Your task to perform on an android device: What is the recent news? Image 0: 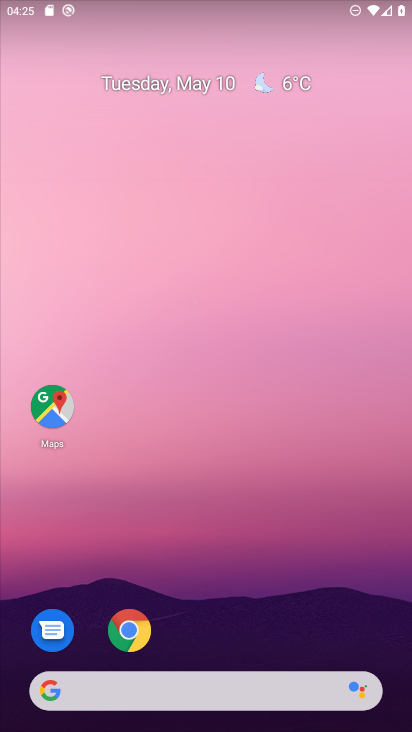
Step 0: click (113, 683)
Your task to perform on an android device: What is the recent news? Image 1: 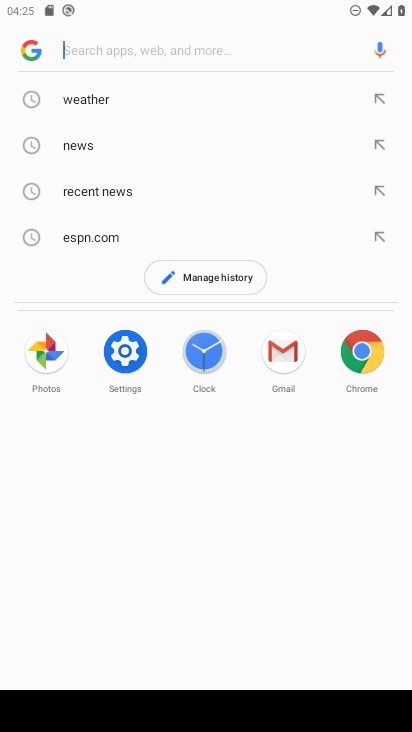
Step 1: click (35, 53)
Your task to perform on an android device: What is the recent news? Image 2: 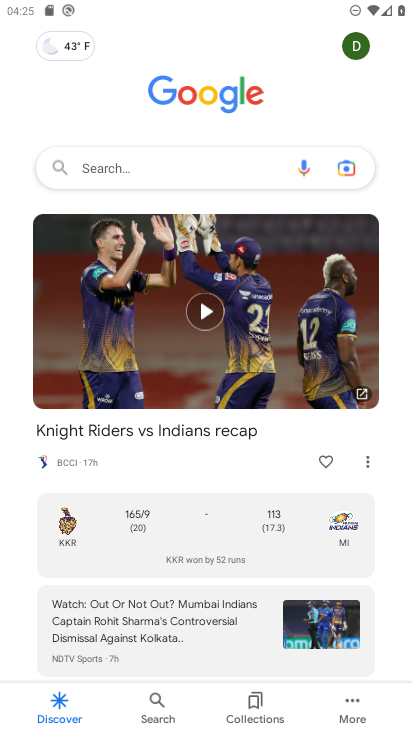
Step 2: task complete